Your task to perform on an android device: Clear all items from cart on costco.com. Add "bose soundlink" to the cart on costco.com, then select checkout. Image 0: 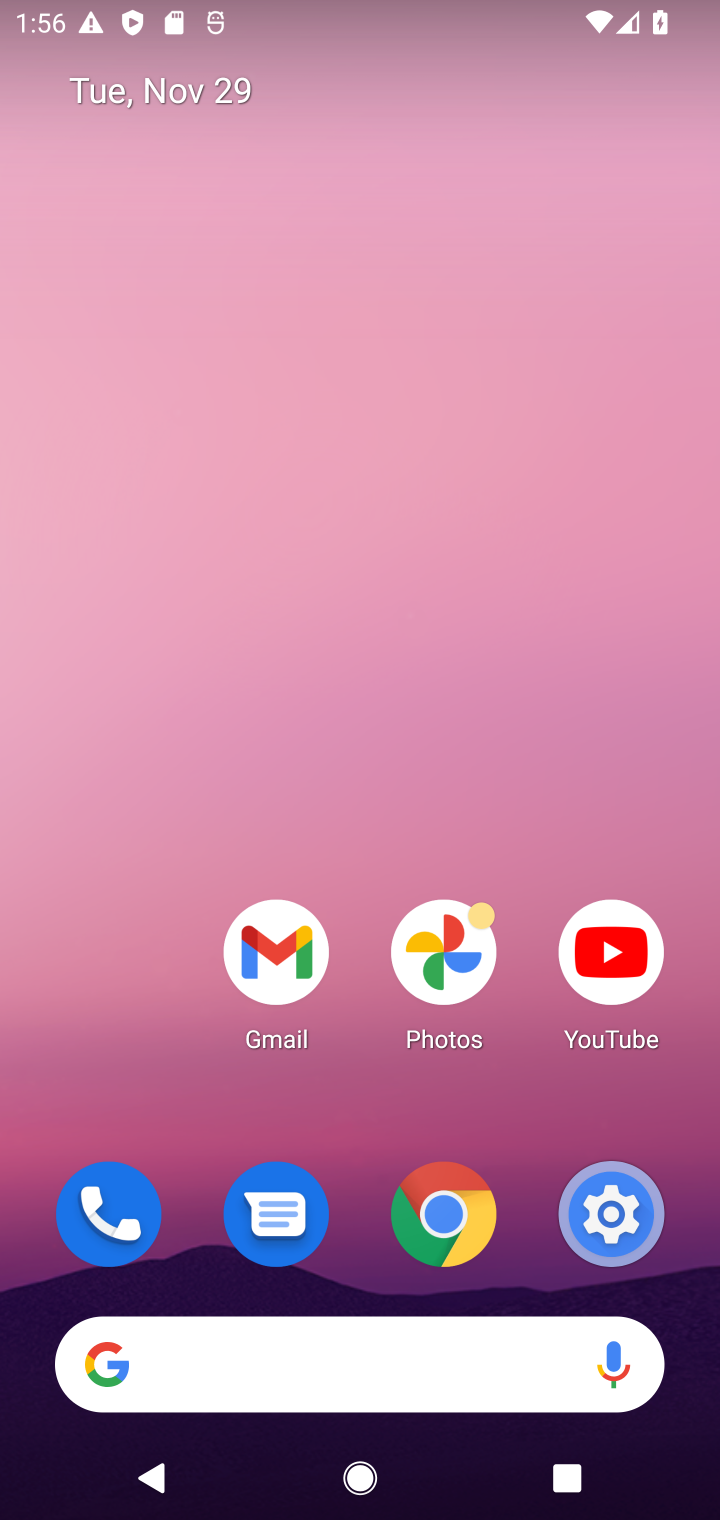
Step 0: click (335, 1363)
Your task to perform on an android device: Clear all items from cart on costco.com. Add "bose soundlink" to the cart on costco.com, then select checkout. Image 1: 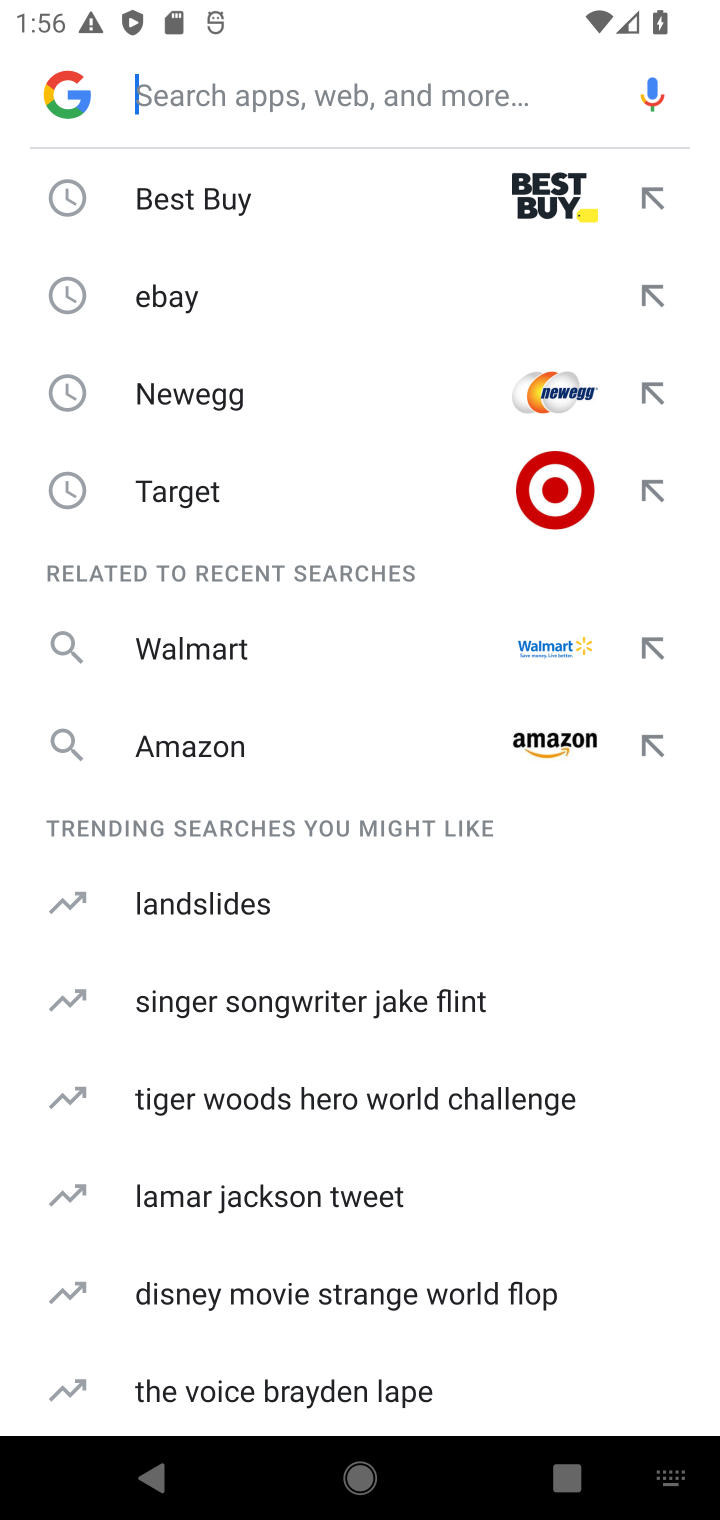
Step 1: type "costco.com"
Your task to perform on an android device: Clear all items from cart on costco.com. Add "bose soundlink" to the cart on costco.com, then select checkout. Image 2: 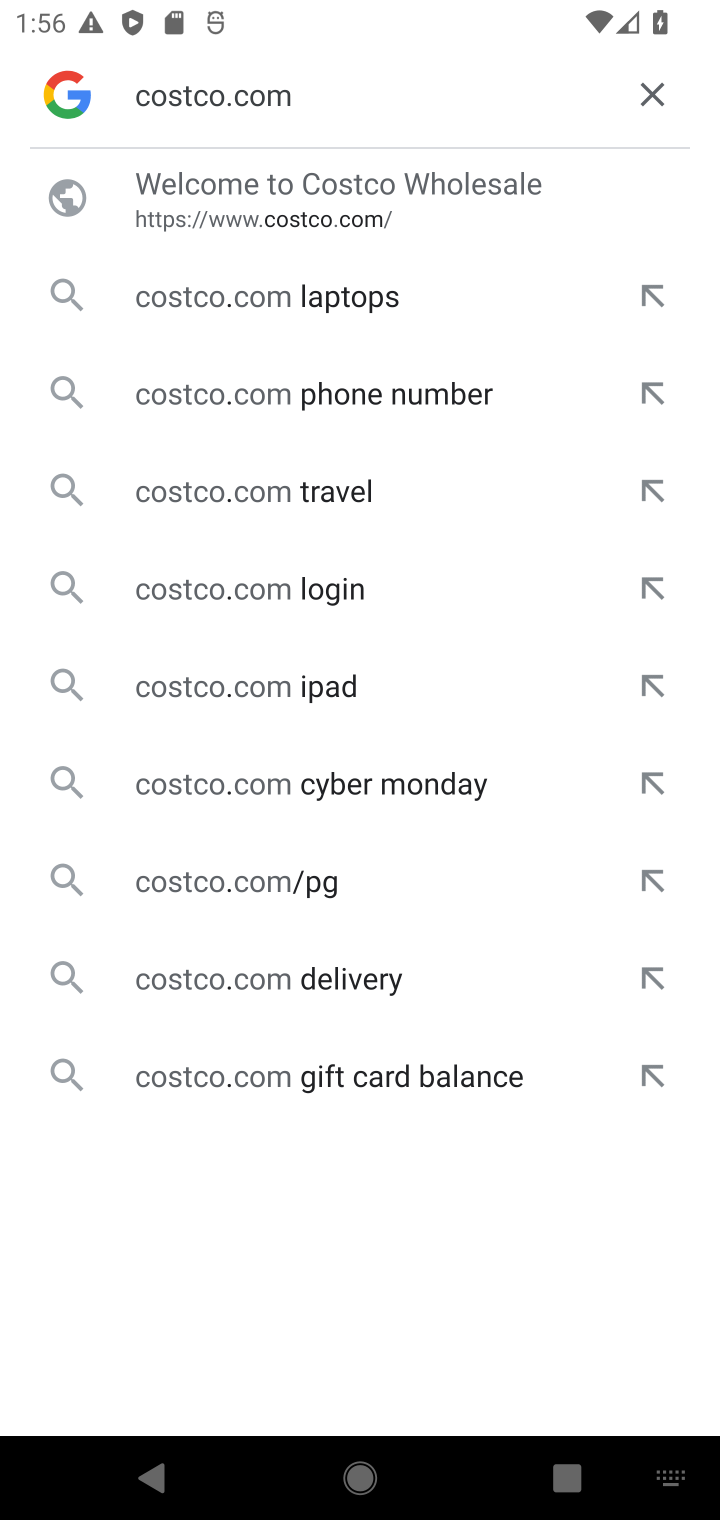
Step 2: click (361, 228)
Your task to perform on an android device: Clear all items from cart on costco.com. Add "bose soundlink" to the cart on costco.com, then select checkout. Image 3: 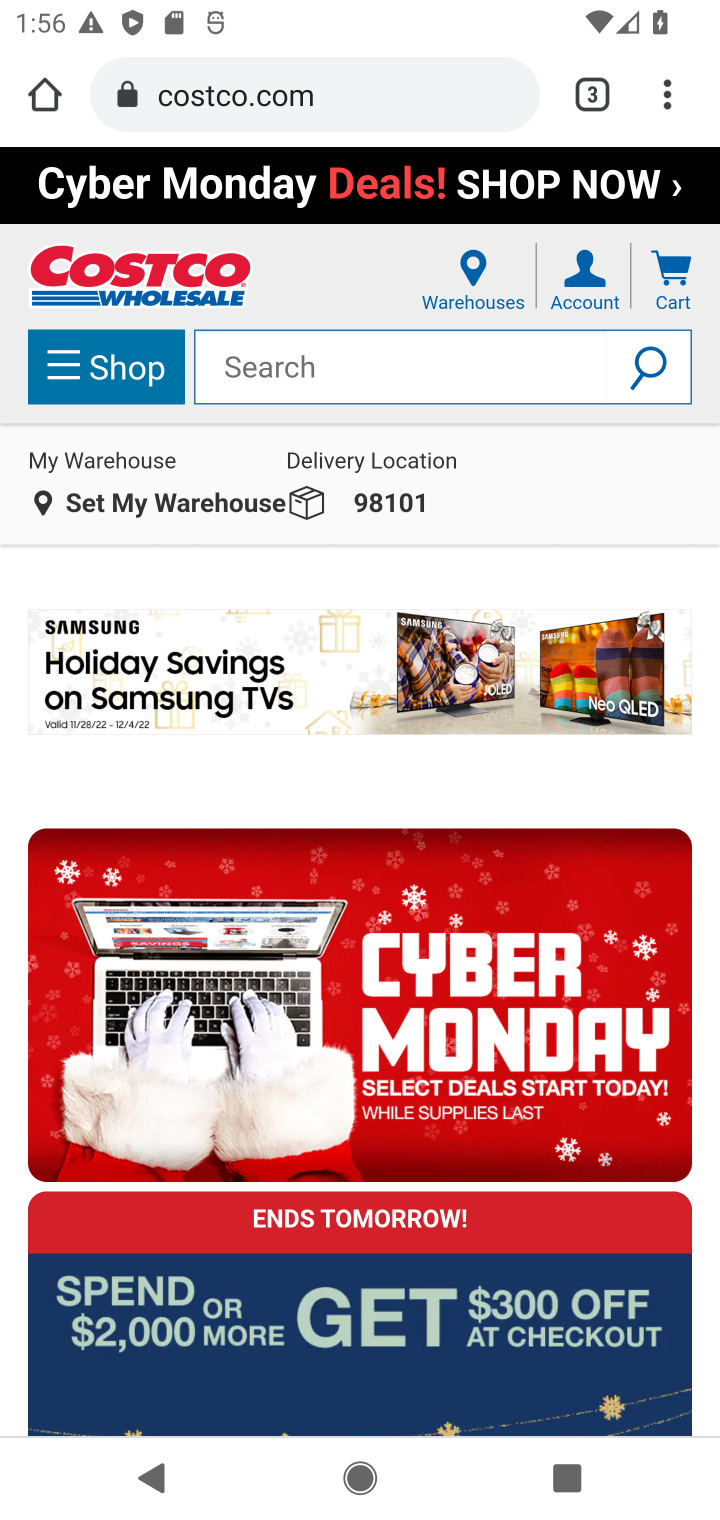
Step 3: click (329, 370)
Your task to perform on an android device: Clear all items from cart on costco.com. Add "bose soundlink" to the cart on costco.com, then select checkout. Image 4: 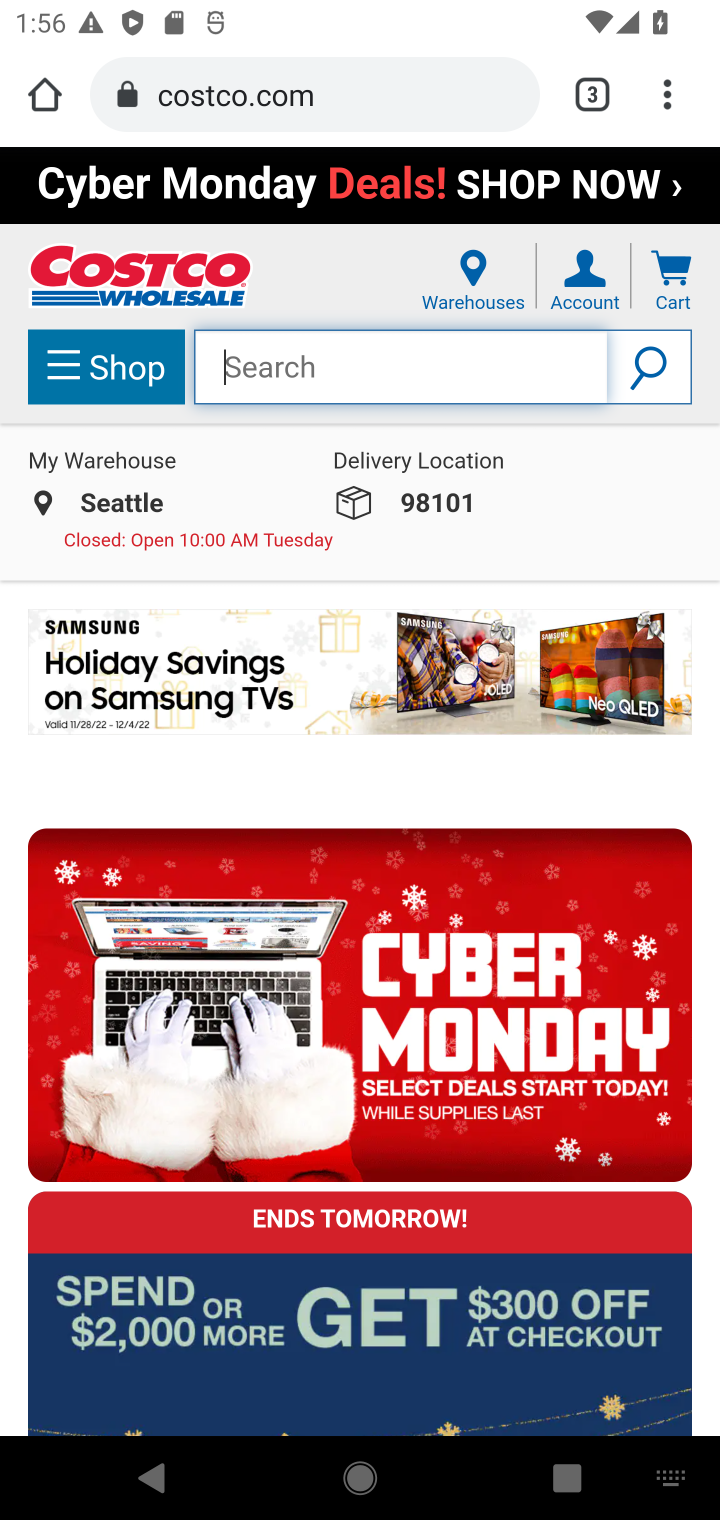
Step 4: task complete